Your task to perform on an android device: Open privacy settings Image 0: 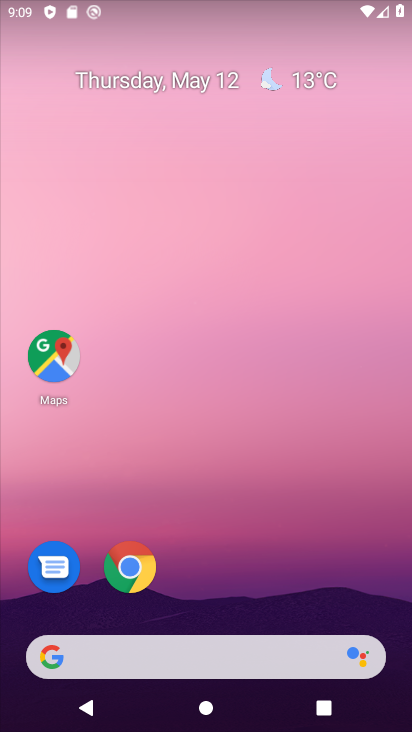
Step 0: drag from (239, 605) to (213, 39)
Your task to perform on an android device: Open privacy settings Image 1: 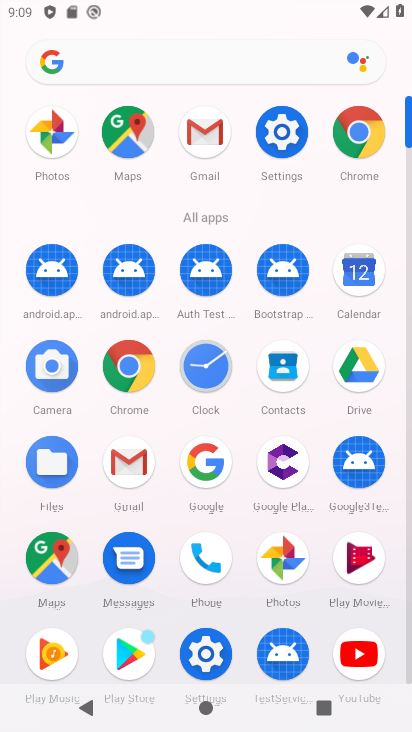
Step 1: click (288, 129)
Your task to perform on an android device: Open privacy settings Image 2: 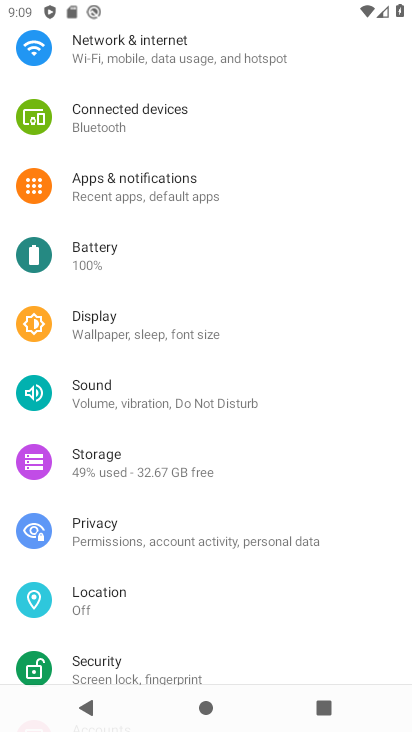
Step 2: click (88, 525)
Your task to perform on an android device: Open privacy settings Image 3: 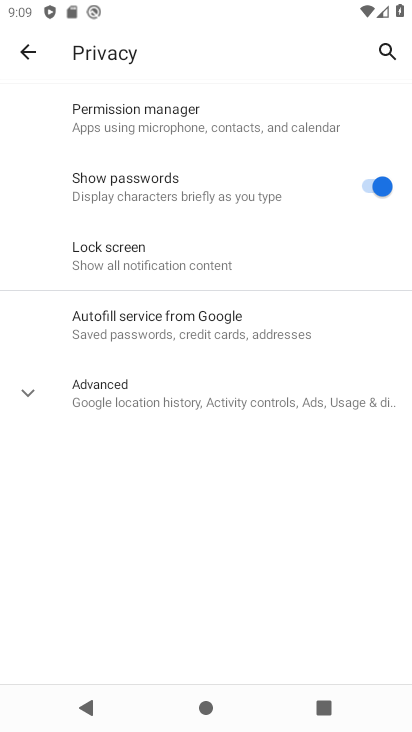
Step 3: task complete